Your task to perform on an android device: Check the weather Image 0: 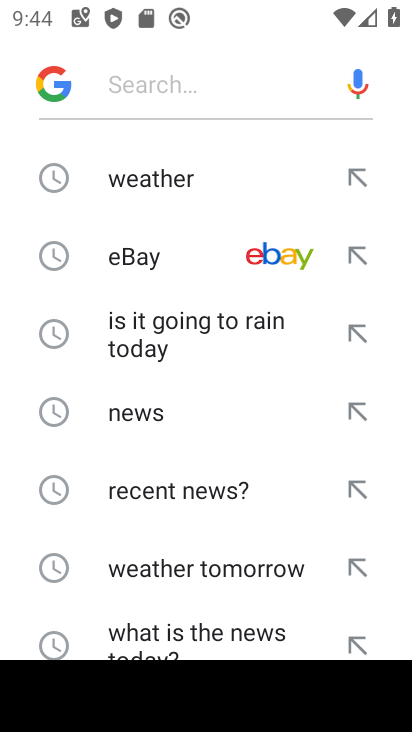
Step 0: press home button
Your task to perform on an android device: Check the weather Image 1: 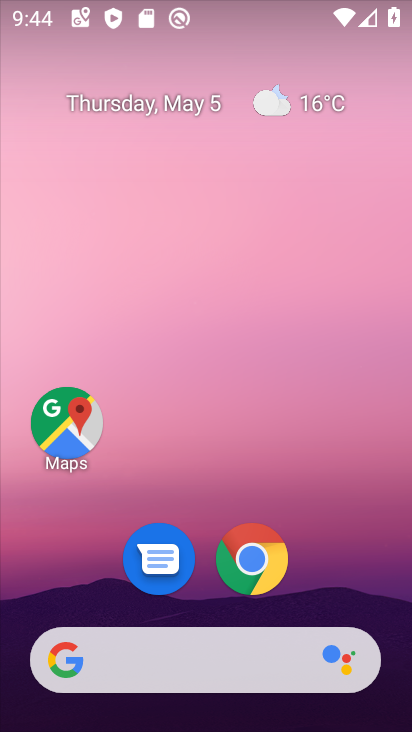
Step 1: click (147, 662)
Your task to perform on an android device: Check the weather Image 2: 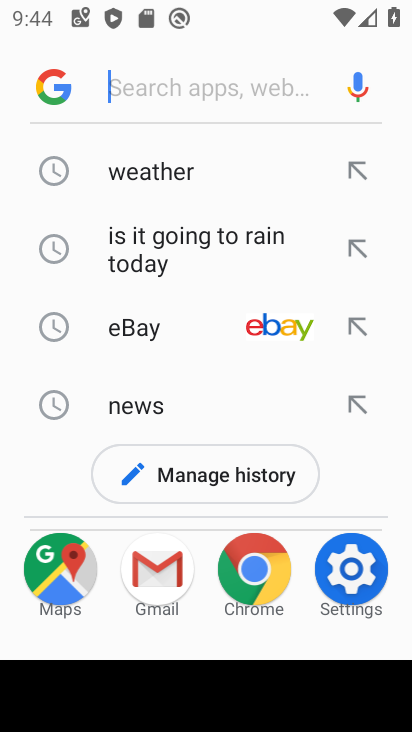
Step 2: click (148, 171)
Your task to perform on an android device: Check the weather Image 3: 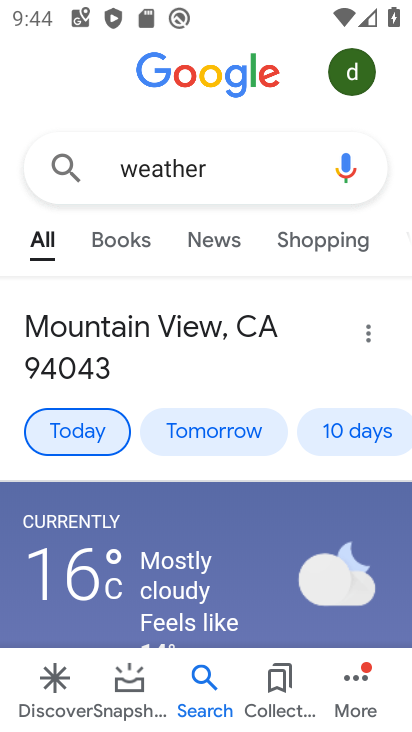
Step 3: task complete